Your task to perform on an android device: Go to privacy settings Image 0: 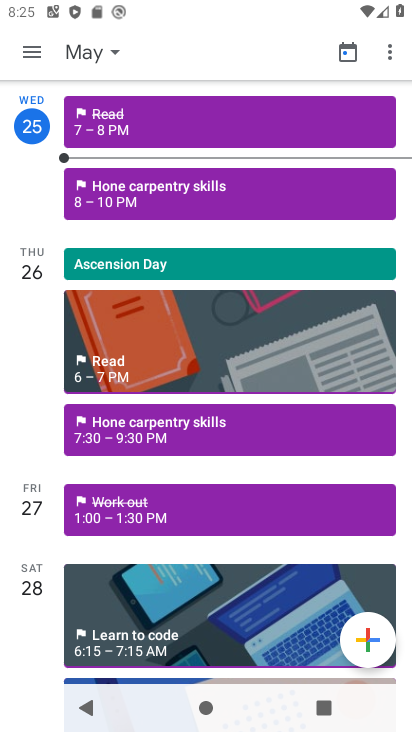
Step 0: press home button
Your task to perform on an android device: Go to privacy settings Image 1: 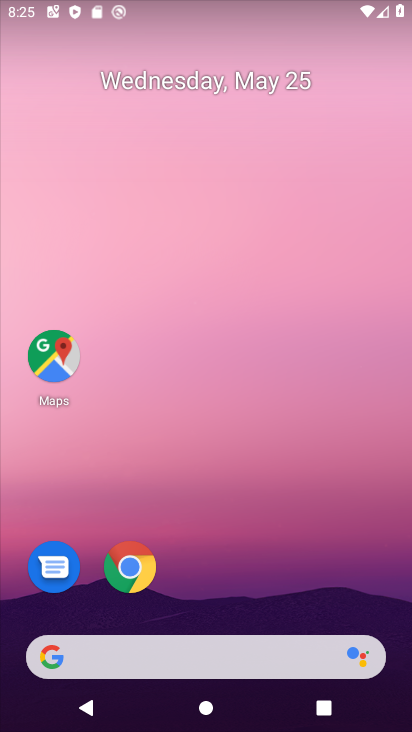
Step 1: drag from (260, 554) to (219, 1)
Your task to perform on an android device: Go to privacy settings Image 2: 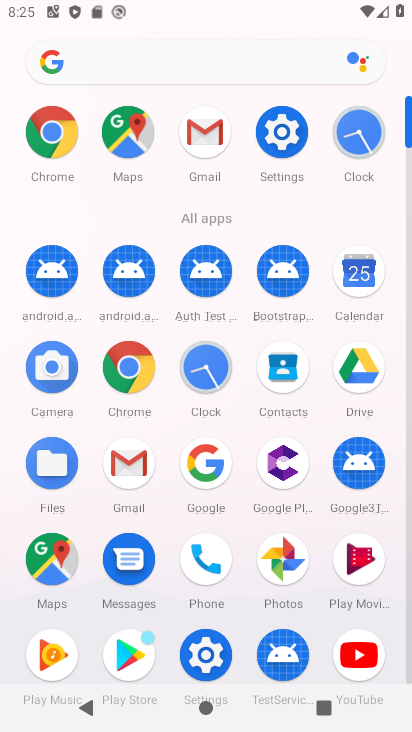
Step 2: click (286, 130)
Your task to perform on an android device: Go to privacy settings Image 3: 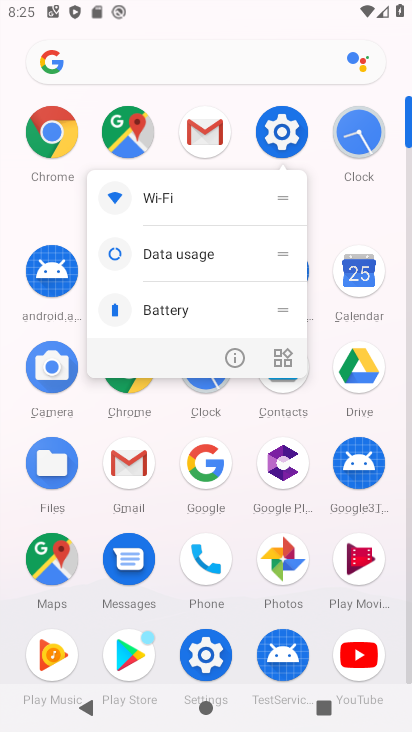
Step 3: click (279, 123)
Your task to perform on an android device: Go to privacy settings Image 4: 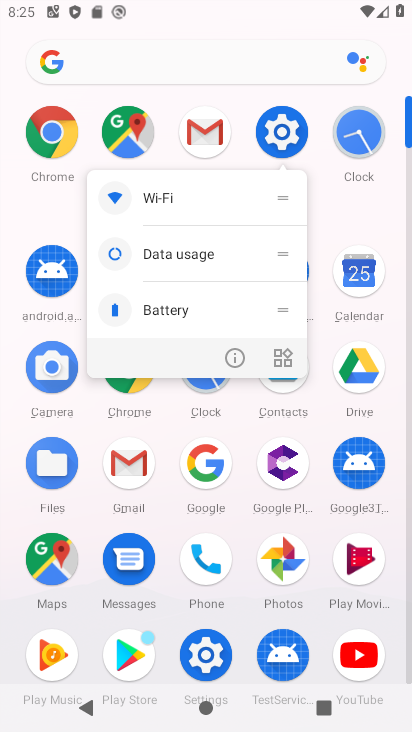
Step 4: click (279, 118)
Your task to perform on an android device: Go to privacy settings Image 5: 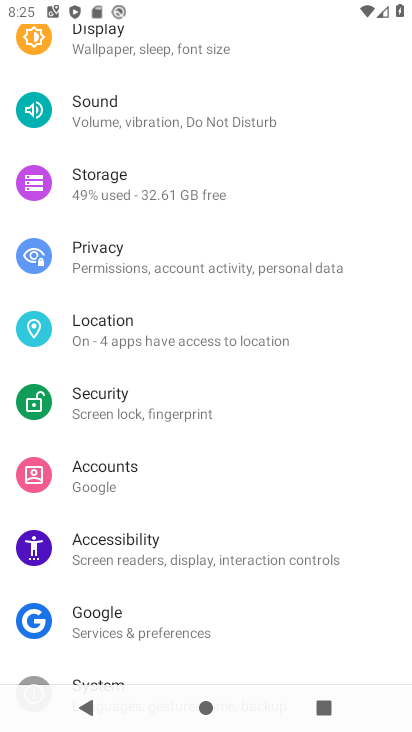
Step 5: click (250, 252)
Your task to perform on an android device: Go to privacy settings Image 6: 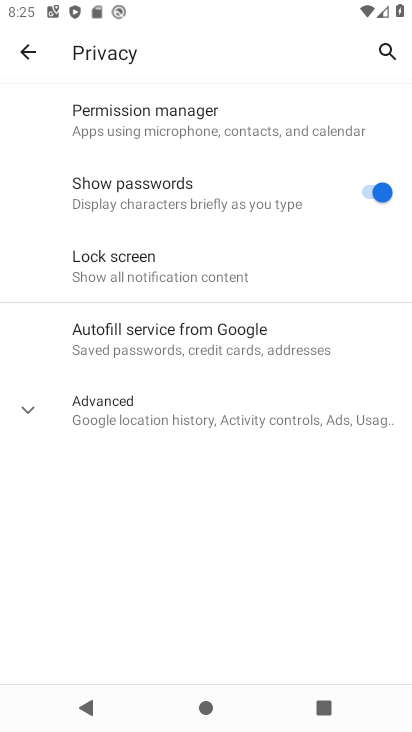
Step 6: task complete